Your task to perform on an android device: Go to Yahoo.com Image 0: 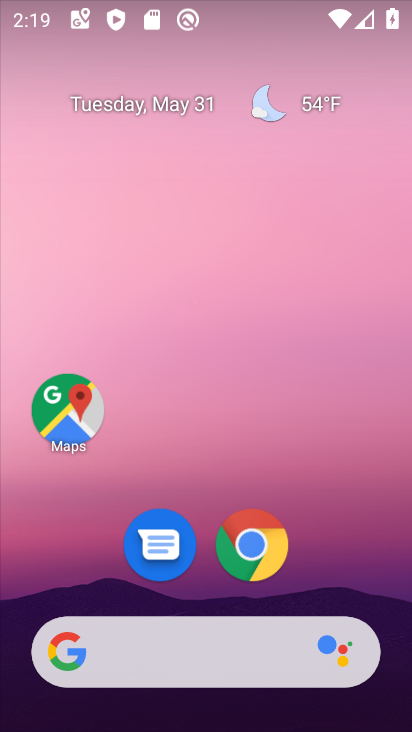
Step 0: click (269, 556)
Your task to perform on an android device: Go to Yahoo.com Image 1: 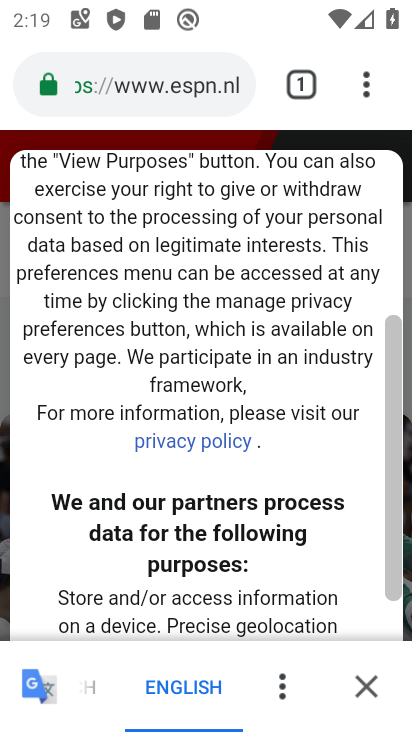
Step 1: click (316, 96)
Your task to perform on an android device: Go to Yahoo.com Image 2: 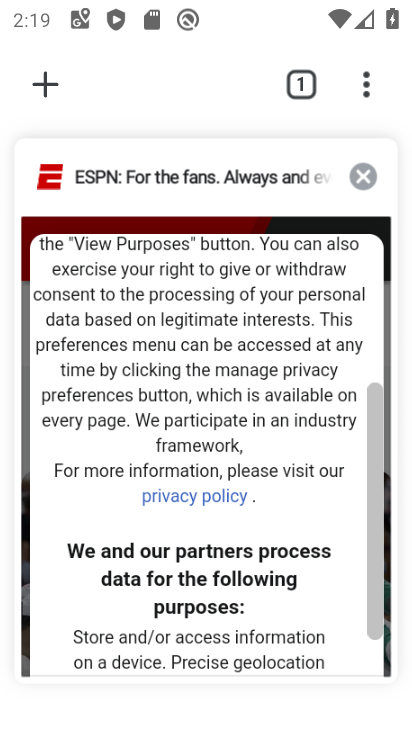
Step 2: click (366, 171)
Your task to perform on an android device: Go to Yahoo.com Image 3: 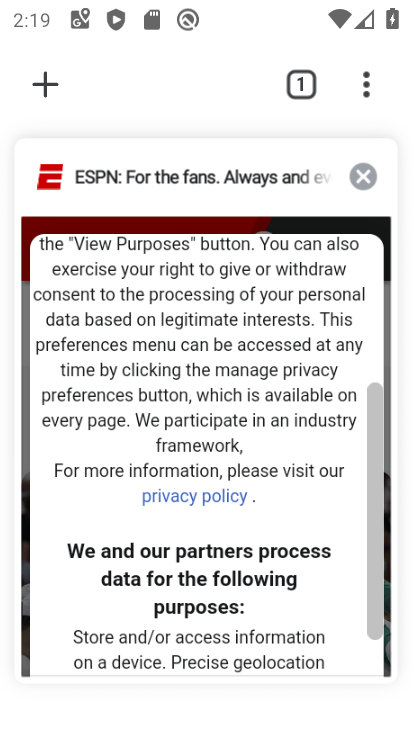
Step 3: click (373, 176)
Your task to perform on an android device: Go to Yahoo.com Image 4: 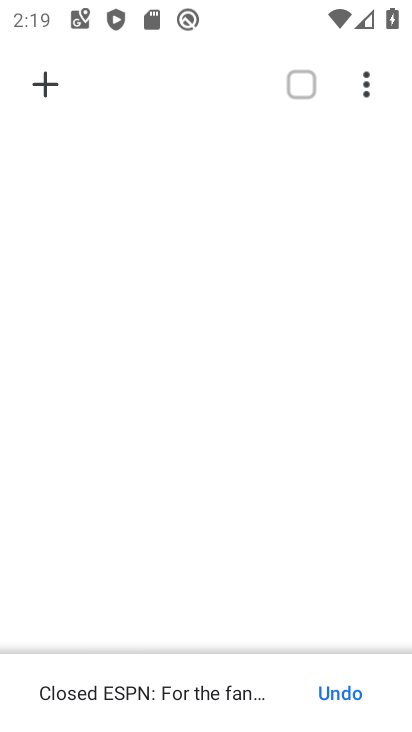
Step 4: click (38, 87)
Your task to perform on an android device: Go to Yahoo.com Image 5: 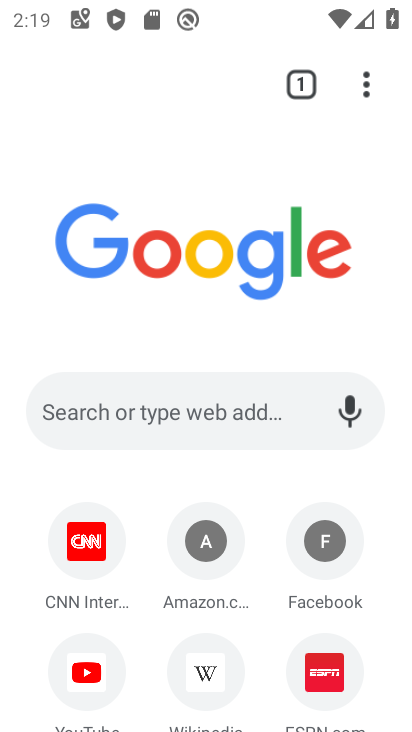
Step 5: click (183, 399)
Your task to perform on an android device: Go to Yahoo.com Image 6: 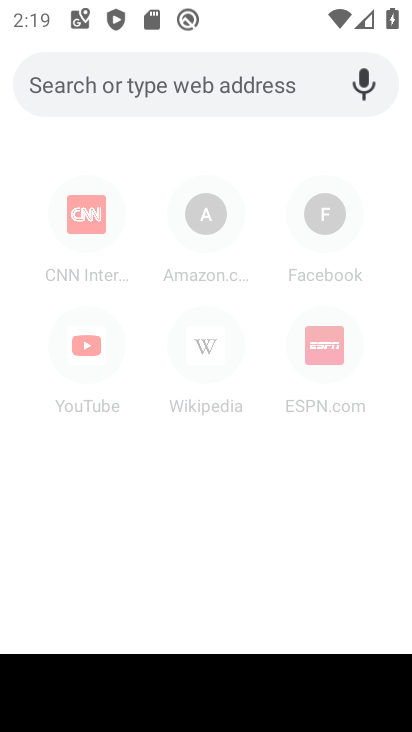
Step 6: type "yahoo.com"
Your task to perform on an android device: Go to Yahoo.com Image 7: 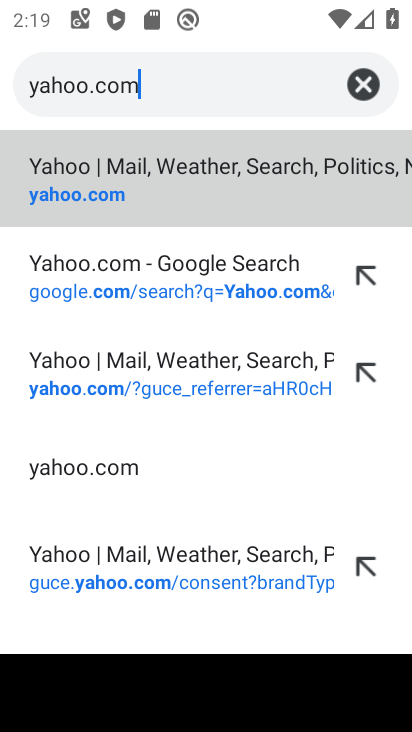
Step 7: click (291, 124)
Your task to perform on an android device: Go to Yahoo.com Image 8: 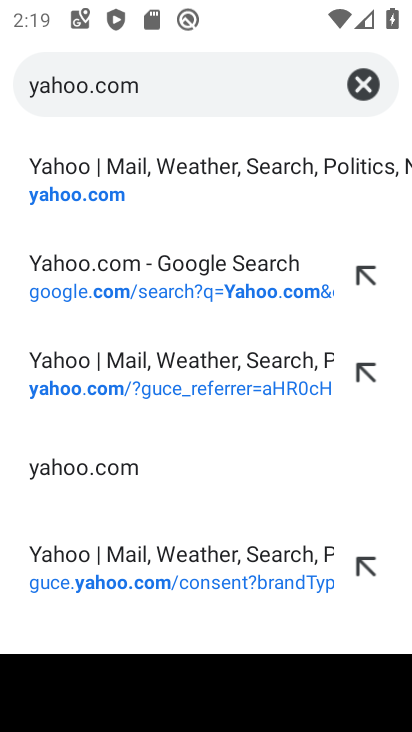
Step 8: click (216, 181)
Your task to perform on an android device: Go to Yahoo.com Image 9: 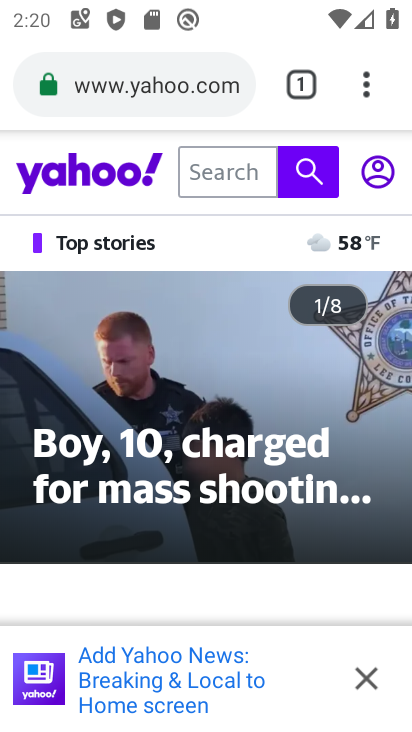
Step 9: task complete